Your task to perform on an android device: Search for seafood restaurants on Google Maps Image 0: 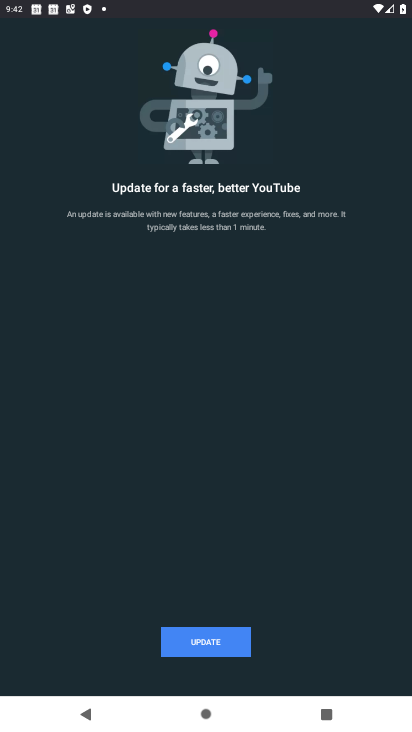
Step 0: press home button
Your task to perform on an android device: Search for seafood restaurants on Google Maps Image 1: 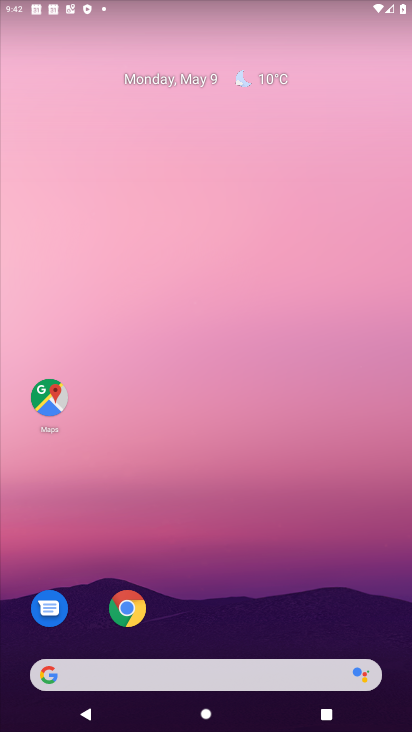
Step 1: drag from (242, 589) to (189, 0)
Your task to perform on an android device: Search for seafood restaurants on Google Maps Image 2: 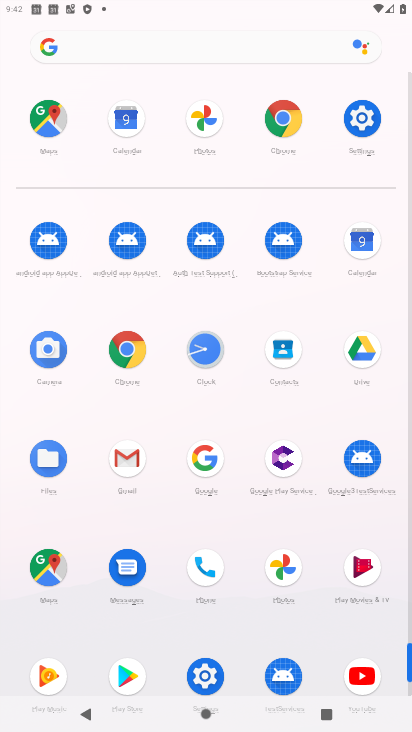
Step 2: click (47, 557)
Your task to perform on an android device: Search for seafood restaurants on Google Maps Image 3: 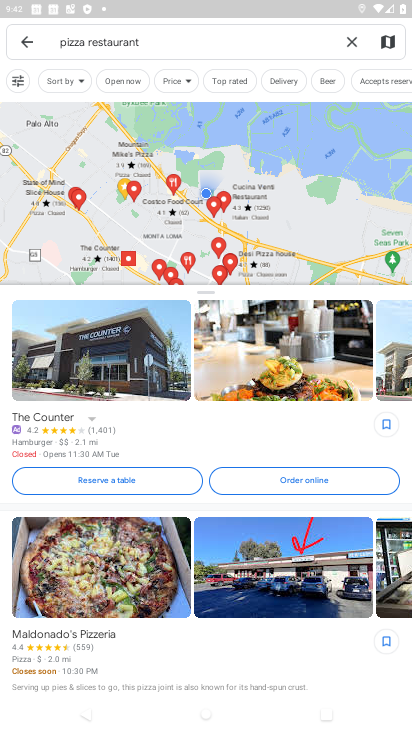
Step 3: click (353, 36)
Your task to perform on an android device: Search for seafood restaurants on Google Maps Image 4: 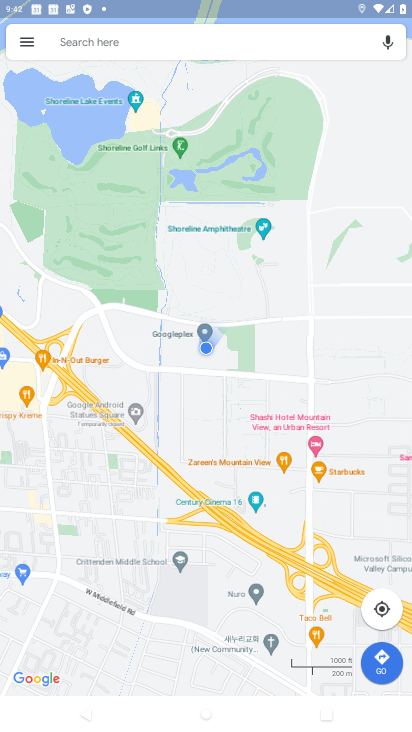
Step 4: click (219, 33)
Your task to perform on an android device: Search for seafood restaurants on Google Maps Image 5: 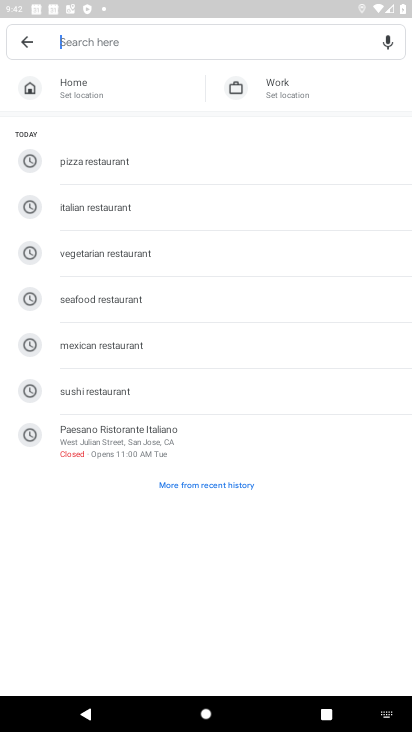
Step 5: click (149, 293)
Your task to perform on an android device: Search for seafood restaurants on Google Maps Image 6: 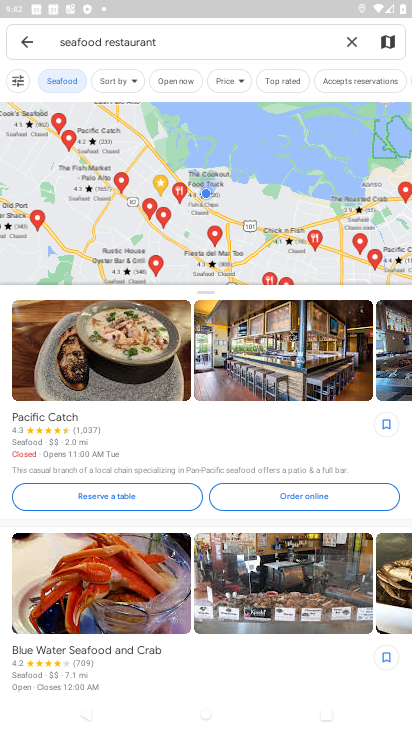
Step 6: task complete